Your task to perform on an android device: Toggle the flashlight Image 0: 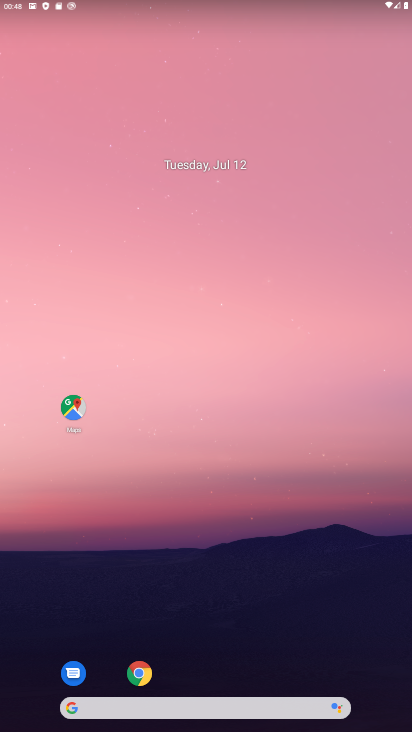
Step 0: drag from (188, 7) to (174, 507)
Your task to perform on an android device: Toggle the flashlight Image 1: 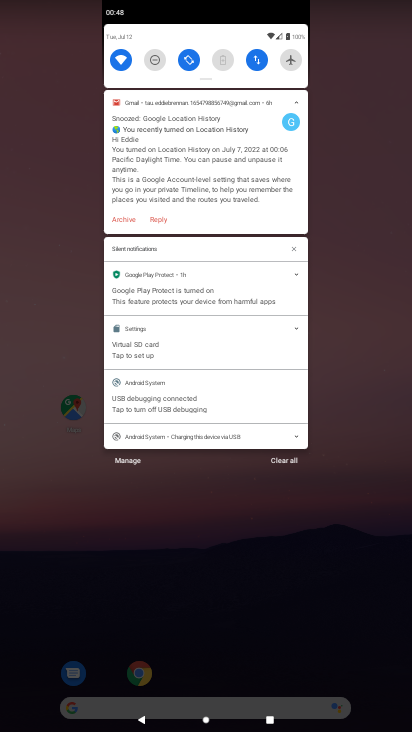
Step 1: task complete